Your task to perform on an android device: Search for Italian restaurants on Maps Image 0: 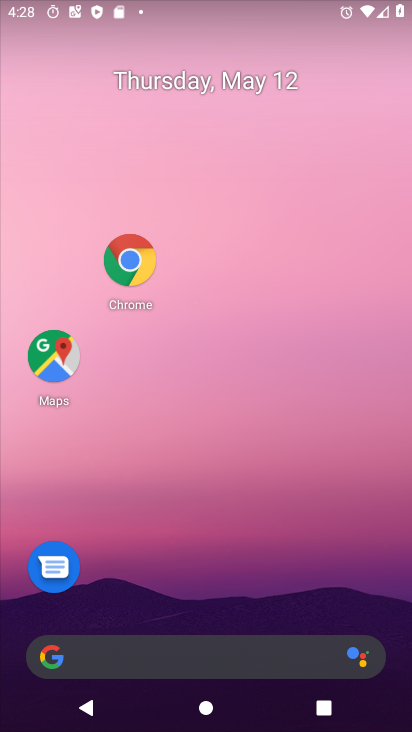
Step 0: drag from (240, 634) to (257, 214)
Your task to perform on an android device: Search for Italian restaurants on Maps Image 1: 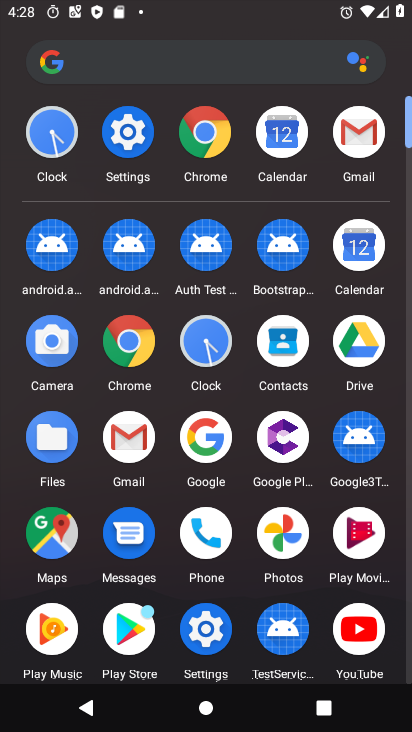
Step 1: click (51, 536)
Your task to perform on an android device: Search for Italian restaurants on Maps Image 2: 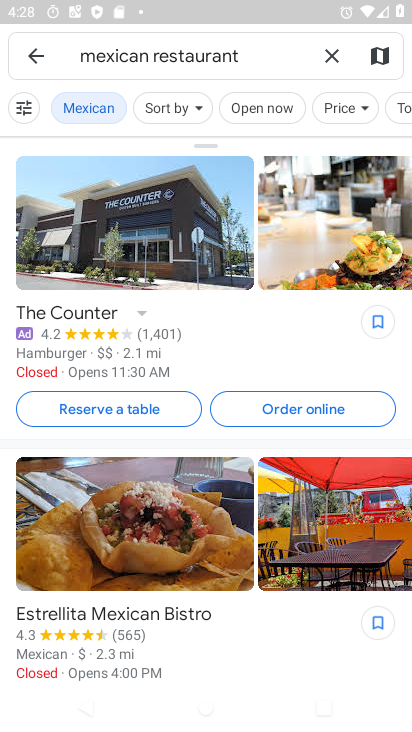
Step 2: click (325, 58)
Your task to perform on an android device: Search for Italian restaurants on Maps Image 3: 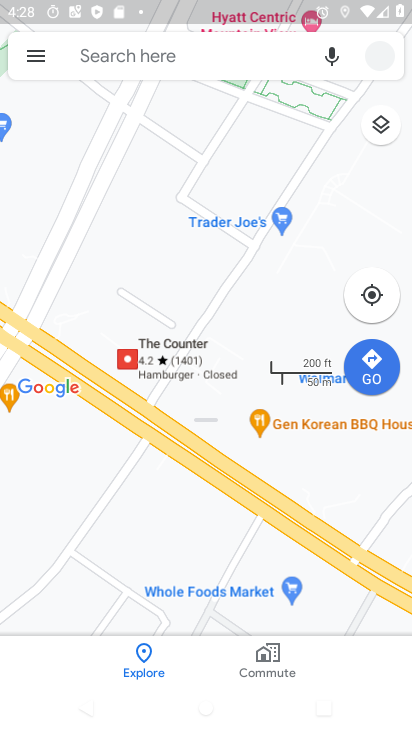
Step 3: click (215, 60)
Your task to perform on an android device: Search for Italian restaurants on Maps Image 4: 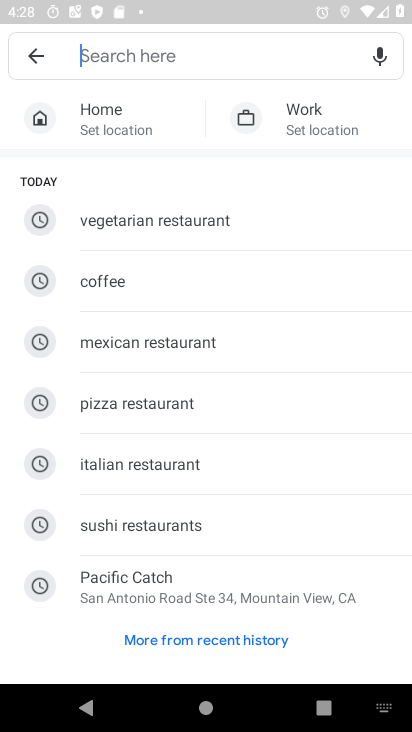
Step 4: click (112, 462)
Your task to perform on an android device: Search for Italian restaurants on Maps Image 5: 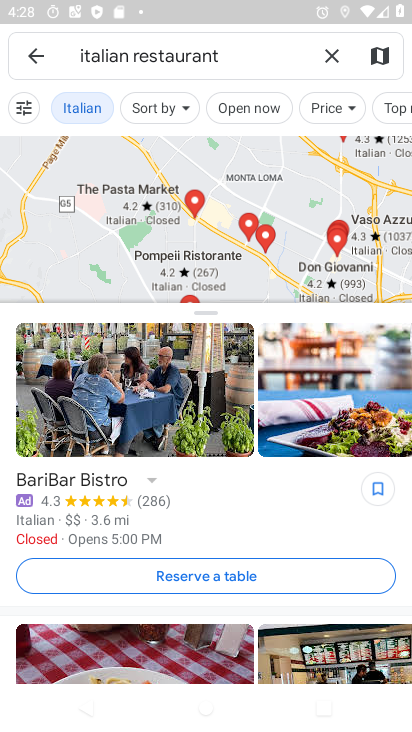
Step 5: task complete